Your task to perform on an android device: turn off picture-in-picture Image 0: 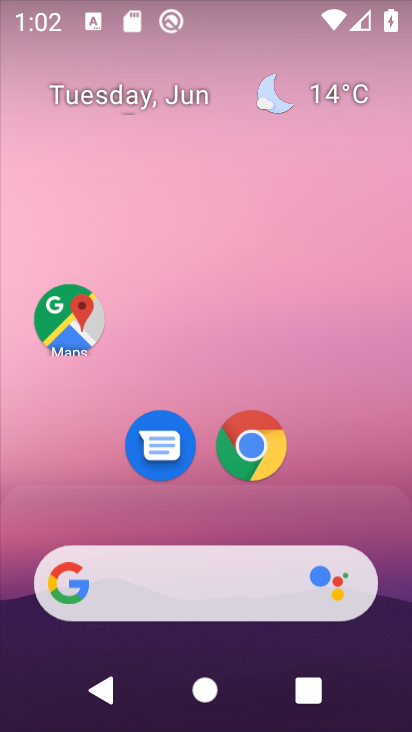
Step 0: click (262, 441)
Your task to perform on an android device: turn off picture-in-picture Image 1: 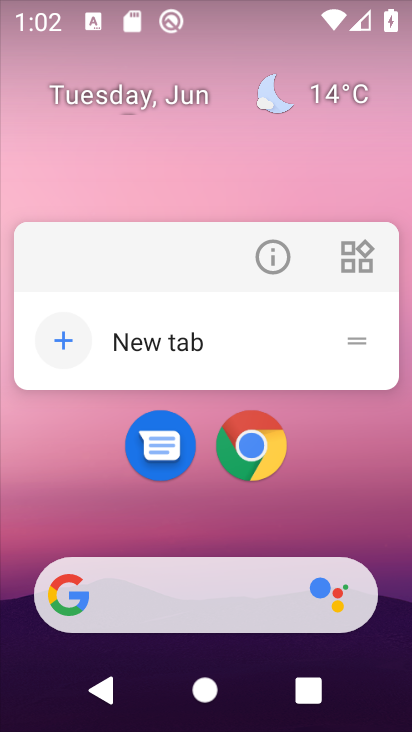
Step 1: click (268, 262)
Your task to perform on an android device: turn off picture-in-picture Image 2: 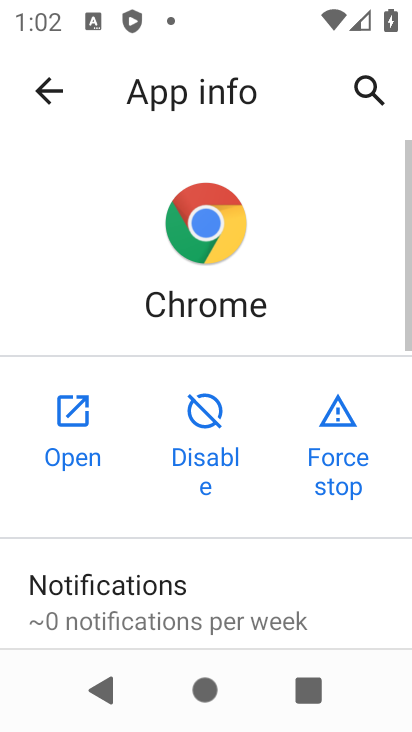
Step 2: drag from (163, 588) to (269, 6)
Your task to perform on an android device: turn off picture-in-picture Image 3: 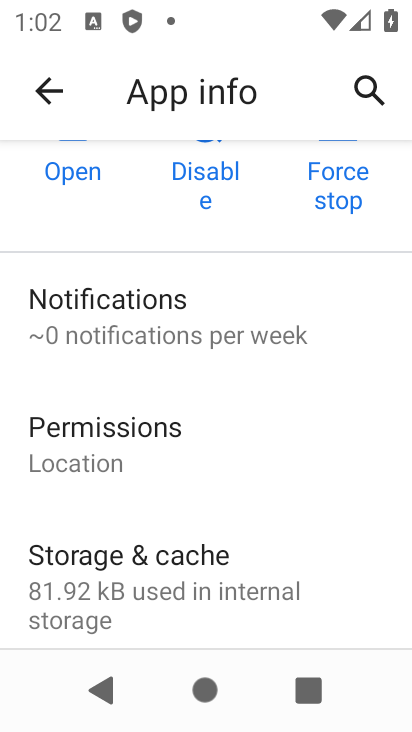
Step 3: drag from (129, 601) to (172, 266)
Your task to perform on an android device: turn off picture-in-picture Image 4: 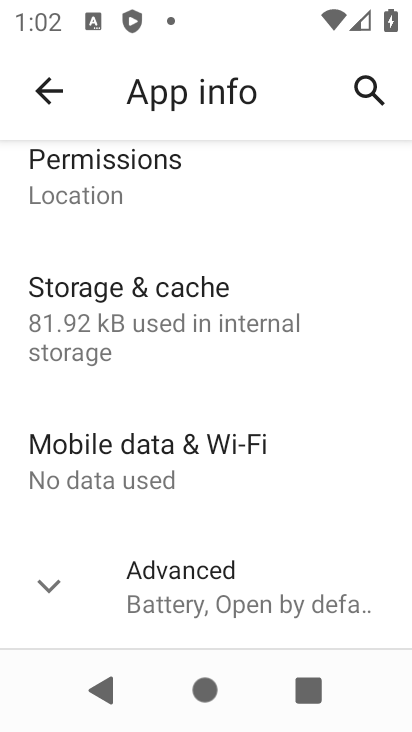
Step 4: drag from (213, 613) to (241, 181)
Your task to perform on an android device: turn off picture-in-picture Image 5: 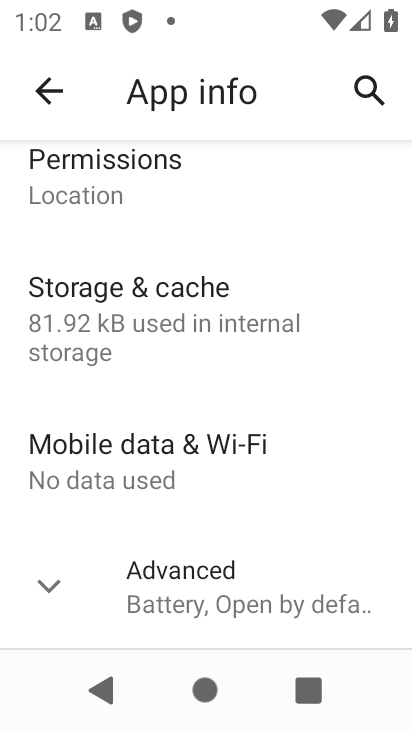
Step 5: click (141, 590)
Your task to perform on an android device: turn off picture-in-picture Image 6: 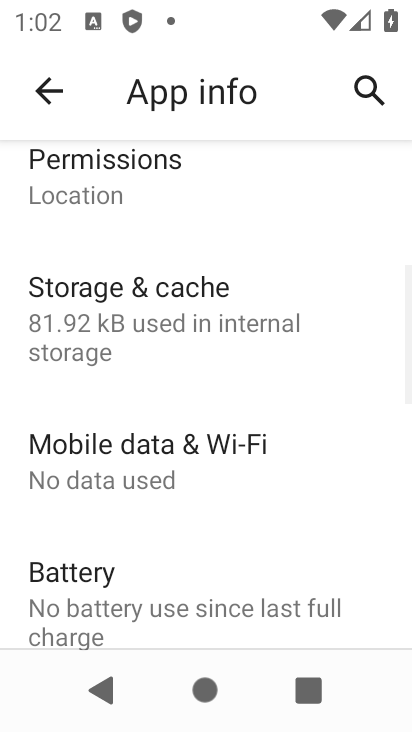
Step 6: drag from (141, 590) to (192, 208)
Your task to perform on an android device: turn off picture-in-picture Image 7: 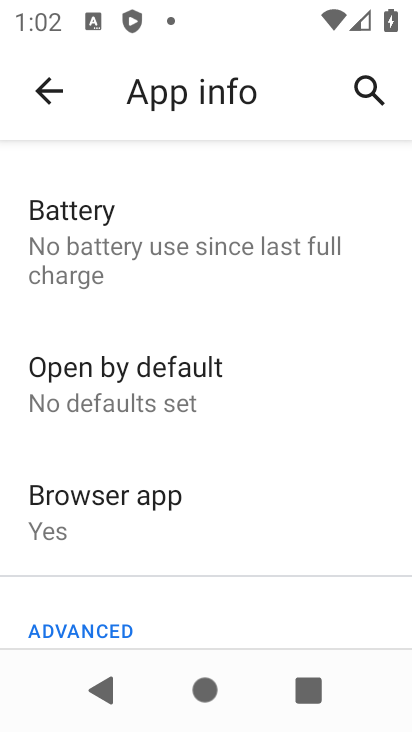
Step 7: drag from (75, 525) to (94, 210)
Your task to perform on an android device: turn off picture-in-picture Image 8: 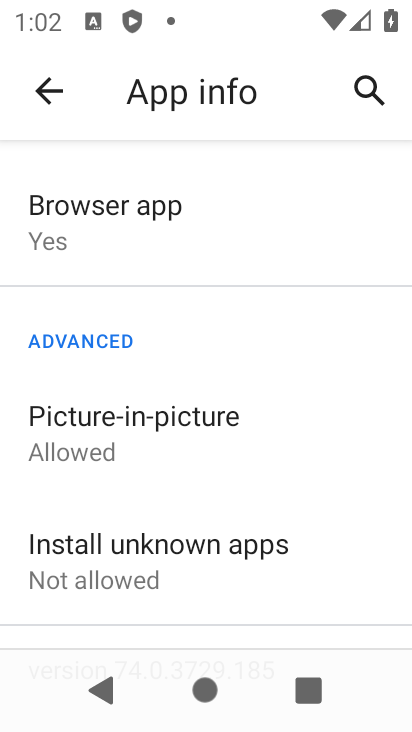
Step 8: click (143, 437)
Your task to perform on an android device: turn off picture-in-picture Image 9: 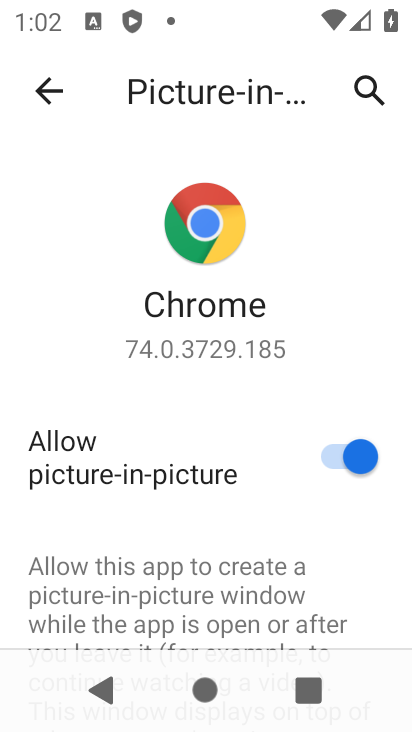
Step 9: click (341, 461)
Your task to perform on an android device: turn off picture-in-picture Image 10: 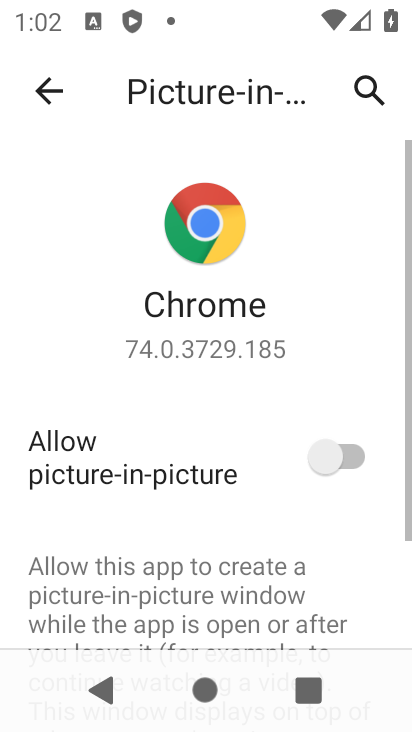
Step 10: task complete